Your task to perform on an android device: check the backup settings in the google photos Image 0: 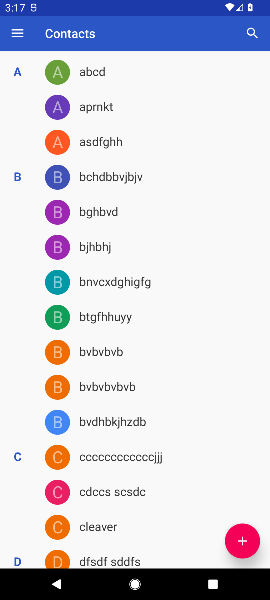
Step 0: press home button
Your task to perform on an android device: check the backup settings in the google photos Image 1: 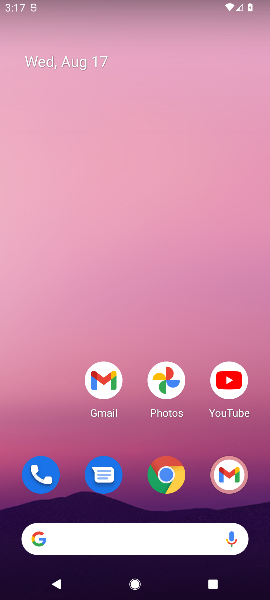
Step 1: click (157, 386)
Your task to perform on an android device: check the backup settings in the google photos Image 2: 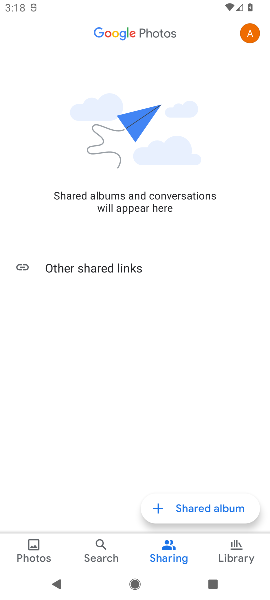
Step 2: click (248, 27)
Your task to perform on an android device: check the backup settings in the google photos Image 3: 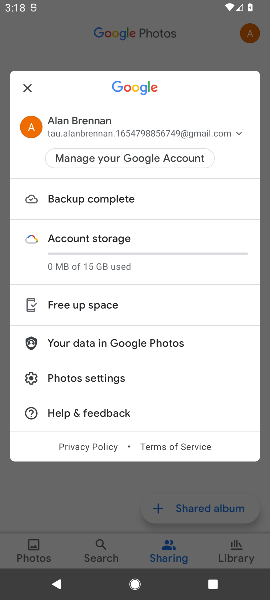
Step 3: click (96, 377)
Your task to perform on an android device: check the backup settings in the google photos Image 4: 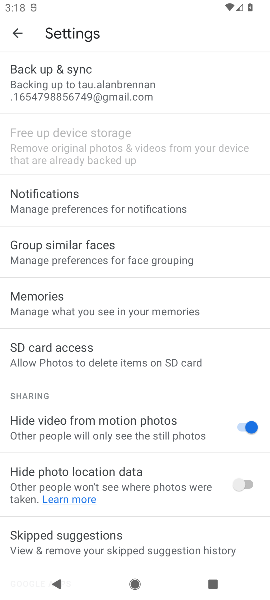
Step 4: click (66, 65)
Your task to perform on an android device: check the backup settings in the google photos Image 5: 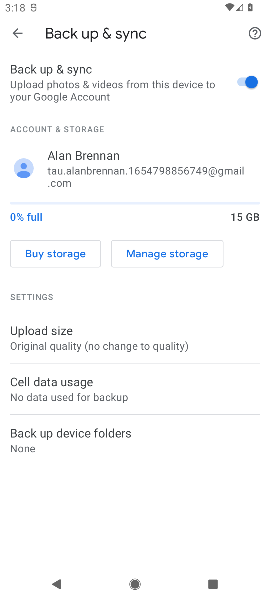
Step 5: task complete